Your task to perform on an android device: toggle wifi Image 0: 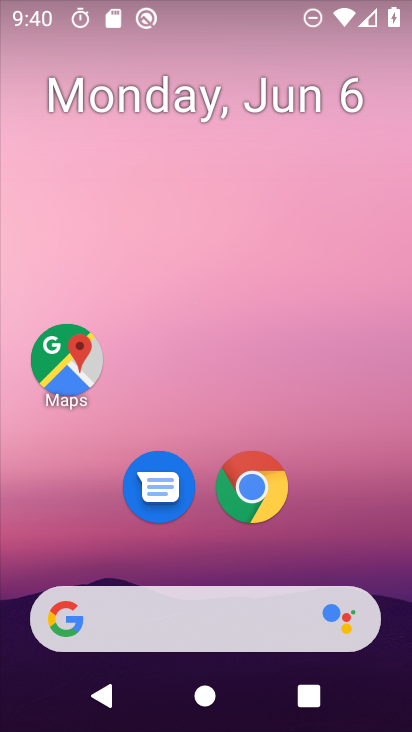
Step 0: drag from (403, 621) to (355, 268)
Your task to perform on an android device: toggle wifi Image 1: 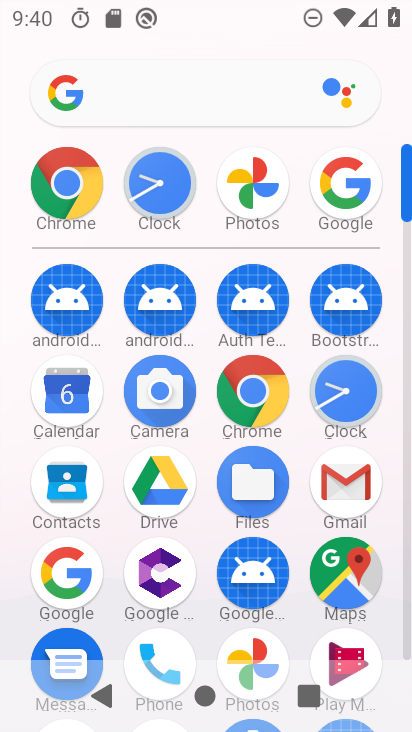
Step 1: press home button
Your task to perform on an android device: toggle wifi Image 2: 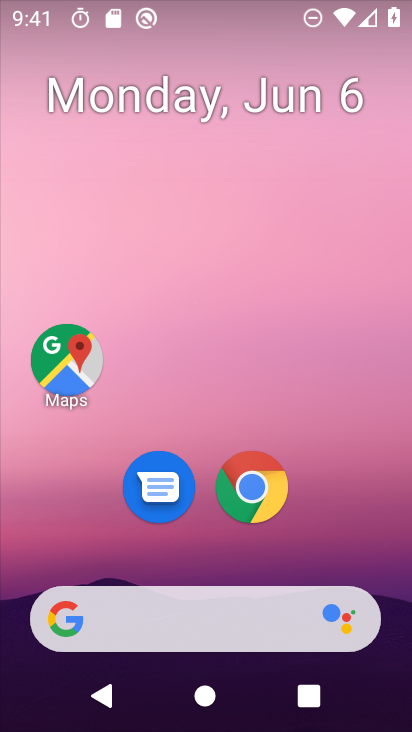
Step 2: drag from (222, 4) to (246, 412)
Your task to perform on an android device: toggle wifi Image 3: 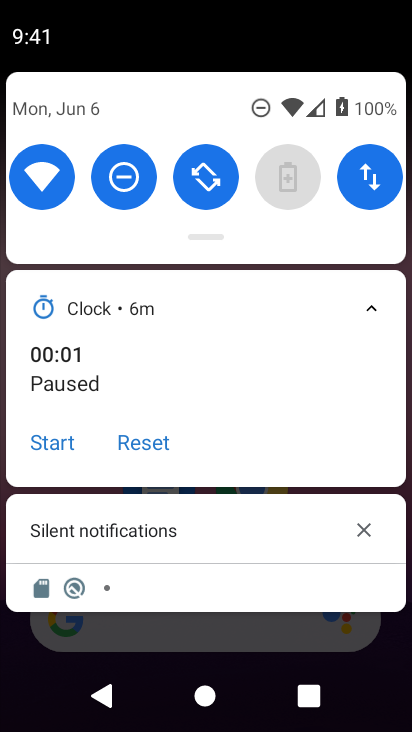
Step 3: click (50, 173)
Your task to perform on an android device: toggle wifi Image 4: 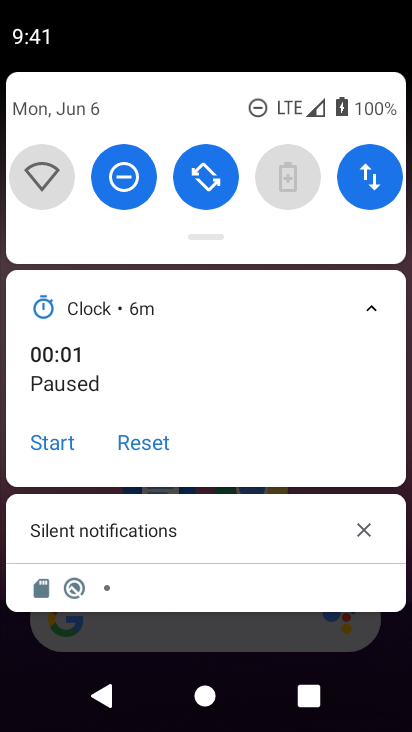
Step 4: task complete